Your task to perform on an android device: Open location settings Image 0: 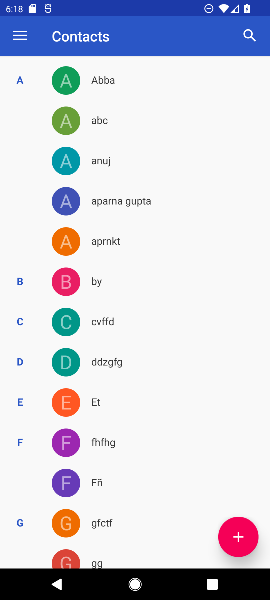
Step 0: press home button
Your task to perform on an android device: Open location settings Image 1: 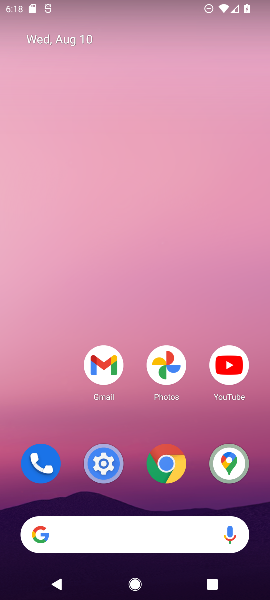
Step 1: click (102, 461)
Your task to perform on an android device: Open location settings Image 2: 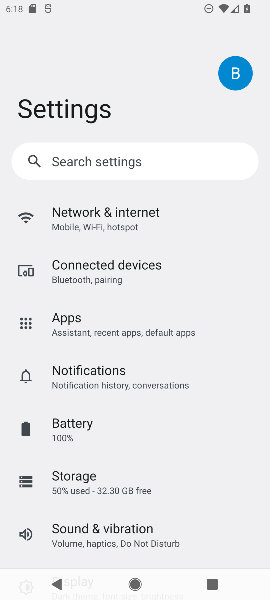
Step 2: drag from (178, 462) to (149, 202)
Your task to perform on an android device: Open location settings Image 3: 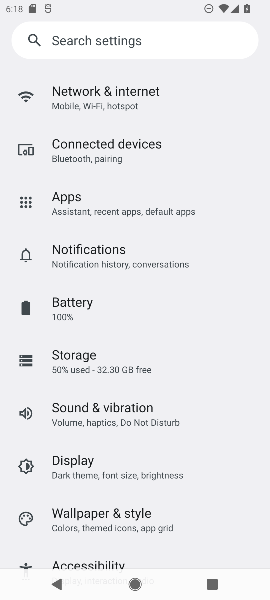
Step 3: drag from (154, 444) to (152, 178)
Your task to perform on an android device: Open location settings Image 4: 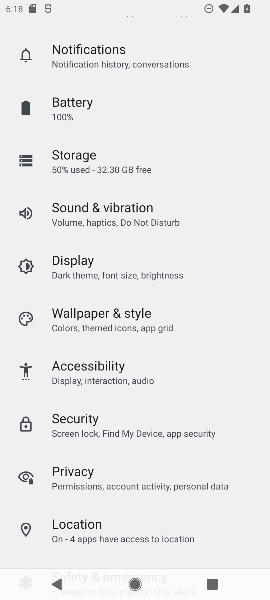
Step 4: click (65, 527)
Your task to perform on an android device: Open location settings Image 5: 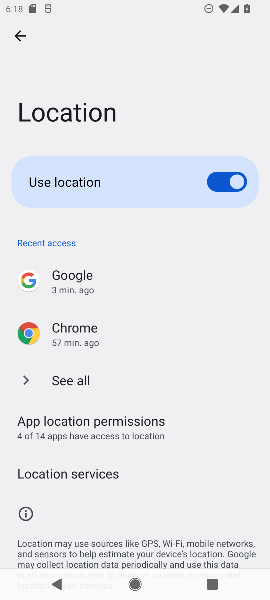
Step 5: task complete